Your task to perform on an android device: turn off airplane mode Image 0: 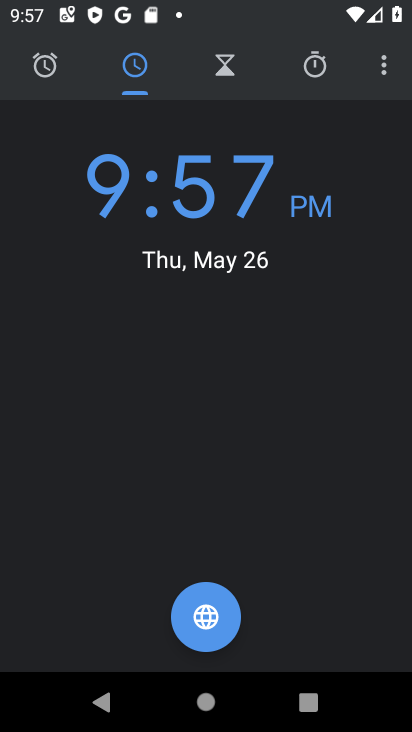
Step 0: press home button
Your task to perform on an android device: turn off airplane mode Image 1: 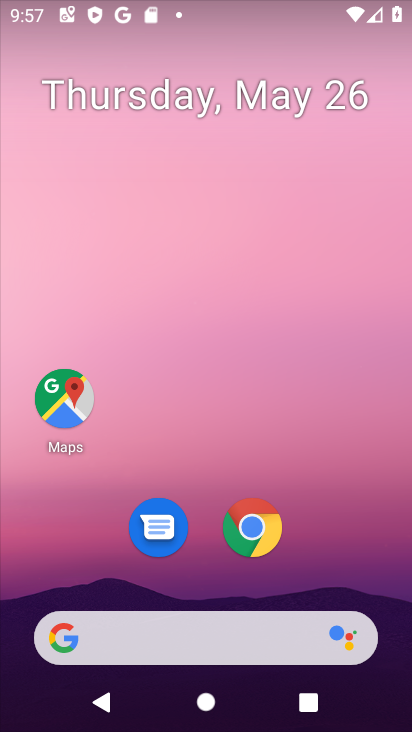
Step 1: task complete